Your task to perform on an android device: turn on showing notifications on the lock screen Image 0: 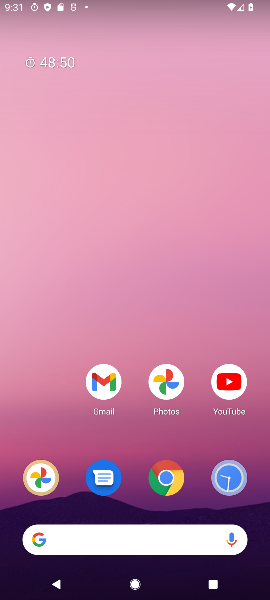
Step 0: press home button
Your task to perform on an android device: turn on showing notifications on the lock screen Image 1: 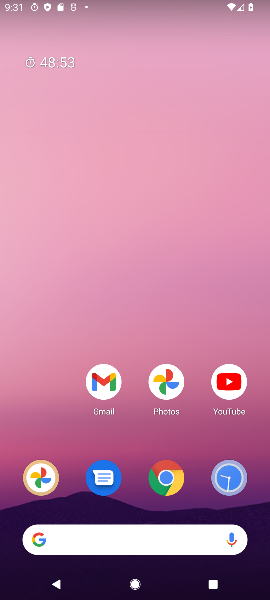
Step 1: drag from (193, 513) to (163, 74)
Your task to perform on an android device: turn on showing notifications on the lock screen Image 2: 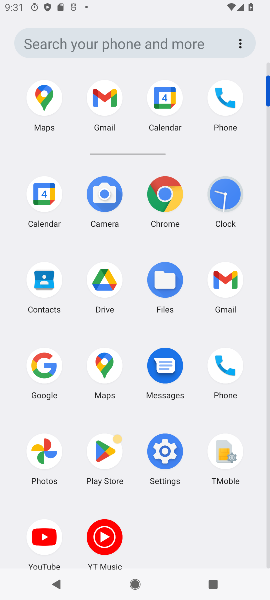
Step 2: click (163, 462)
Your task to perform on an android device: turn on showing notifications on the lock screen Image 3: 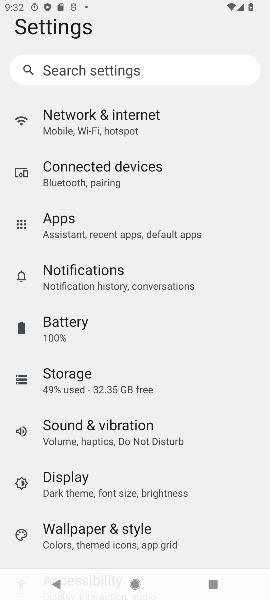
Step 3: click (66, 293)
Your task to perform on an android device: turn on showing notifications on the lock screen Image 4: 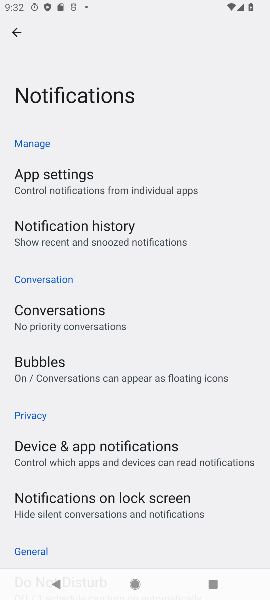
Step 4: click (84, 503)
Your task to perform on an android device: turn on showing notifications on the lock screen Image 5: 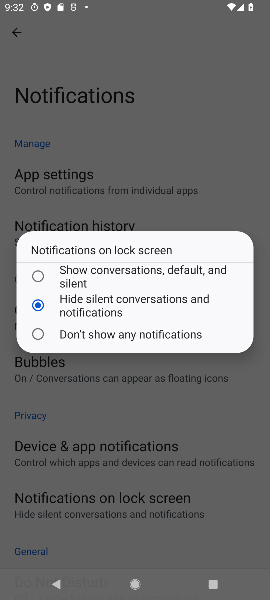
Step 5: click (91, 268)
Your task to perform on an android device: turn on showing notifications on the lock screen Image 6: 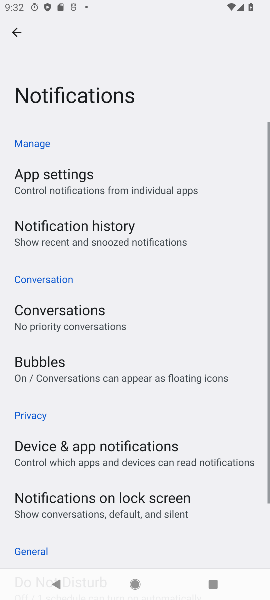
Step 6: task complete